Your task to perform on an android device: toggle location history Image 0: 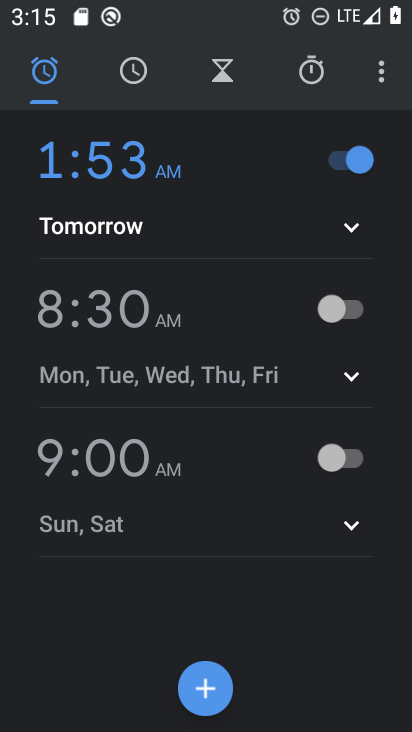
Step 0: press home button
Your task to perform on an android device: toggle location history Image 1: 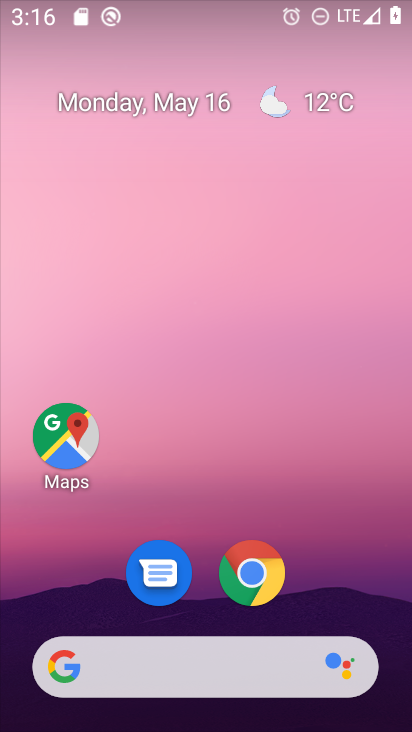
Step 1: drag from (155, 693) to (148, 33)
Your task to perform on an android device: toggle location history Image 2: 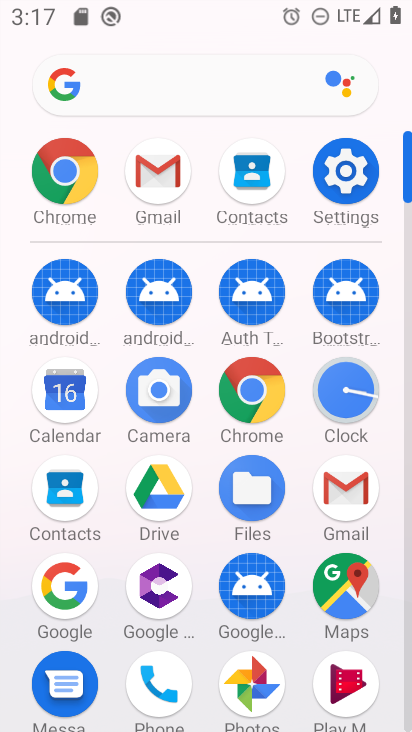
Step 2: click (342, 178)
Your task to perform on an android device: toggle location history Image 3: 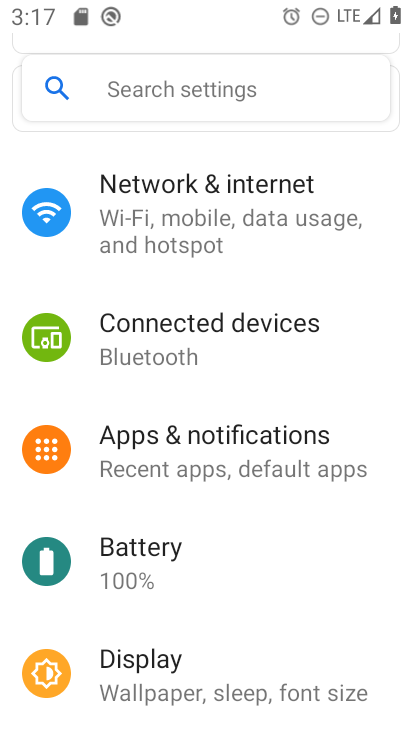
Step 3: drag from (263, 581) to (190, 108)
Your task to perform on an android device: toggle location history Image 4: 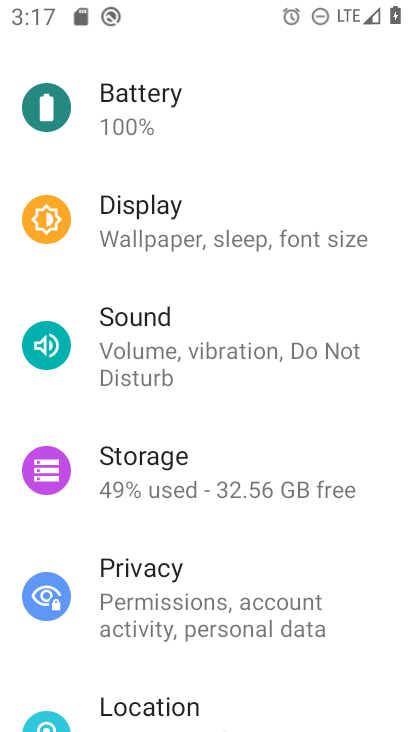
Step 4: drag from (153, 657) to (157, 335)
Your task to perform on an android device: toggle location history Image 5: 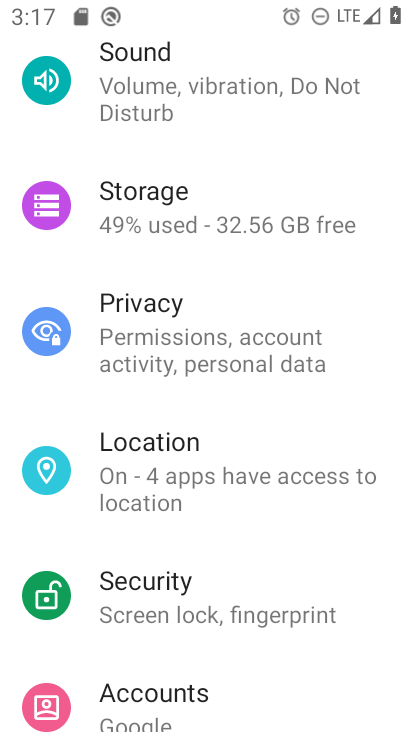
Step 5: click (138, 503)
Your task to perform on an android device: toggle location history Image 6: 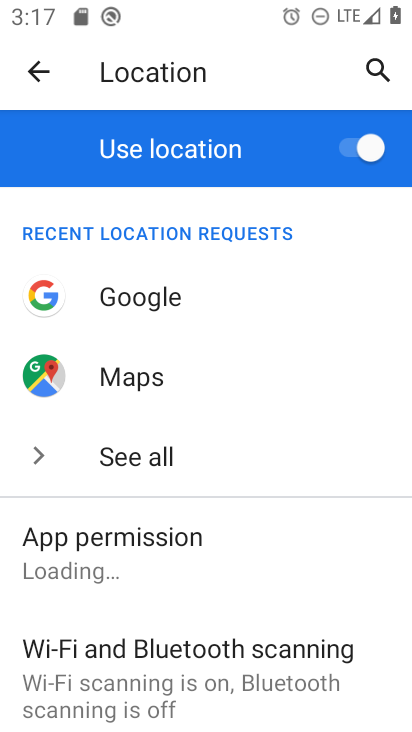
Step 6: drag from (126, 578) to (132, 42)
Your task to perform on an android device: toggle location history Image 7: 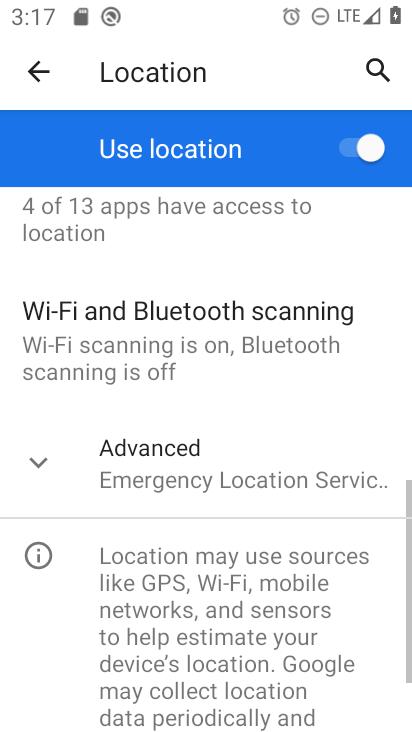
Step 7: drag from (187, 632) to (173, 354)
Your task to perform on an android device: toggle location history Image 8: 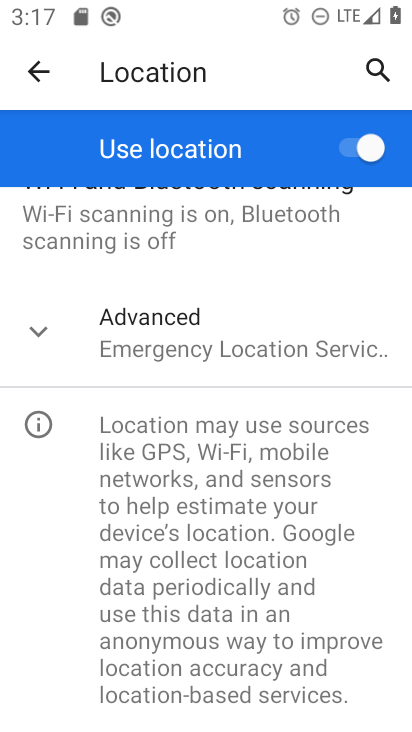
Step 8: click (132, 350)
Your task to perform on an android device: toggle location history Image 9: 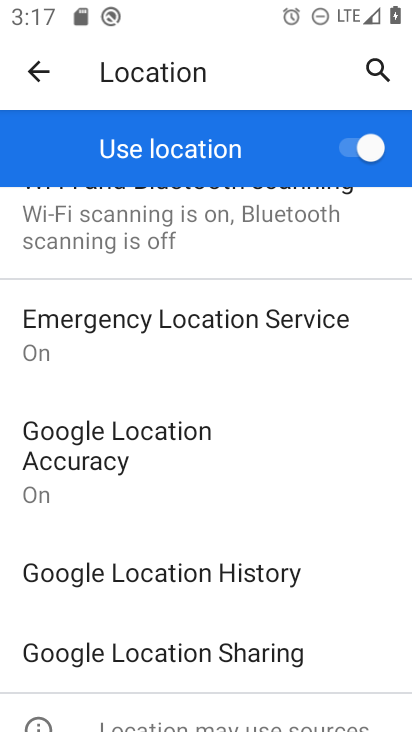
Step 9: click (177, 564)
Your task to perform on an android device: toggle location history Image 10: 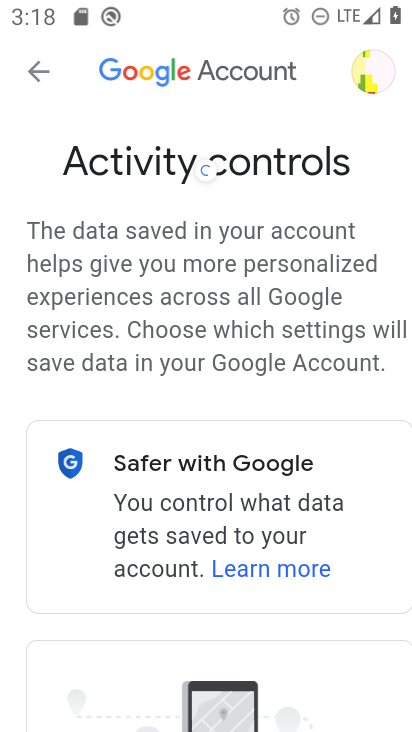
Step 10: drag from (261, 524) to (13, 439)
Your task to perform on an android device: toggle location history Image 11: 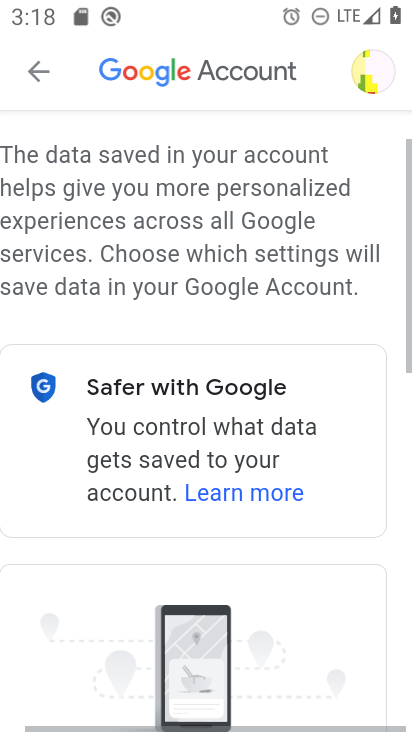
Step 11: drag from (273, 577) to (24, 17)
Your task to perform on an android device: toggle location history Image 12: 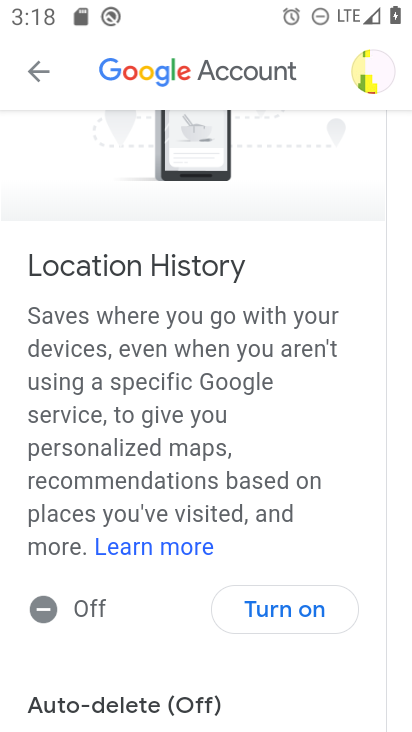
Step 12: click (266, 617)
Your task to perform on an android device: toggle location history Image 13: 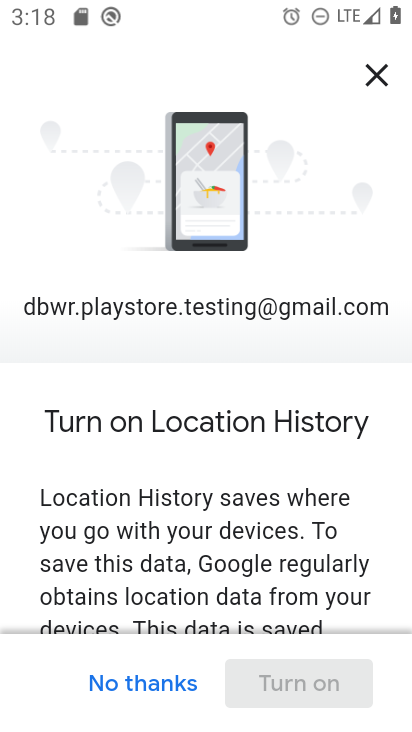
Step 13: drag from (260, 591) to (89, 26)
Your task to perform on an android device: toggle location history Image 14: 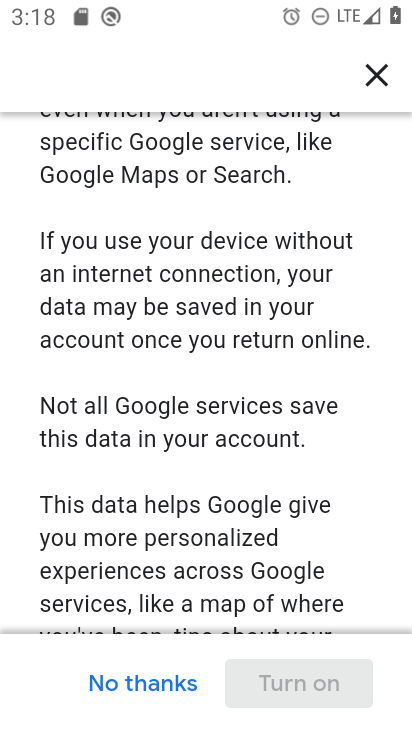
Step 14: drag from (308, 587) to (200, 8)
Your task to perform on an android device: toggle location history Image 15: 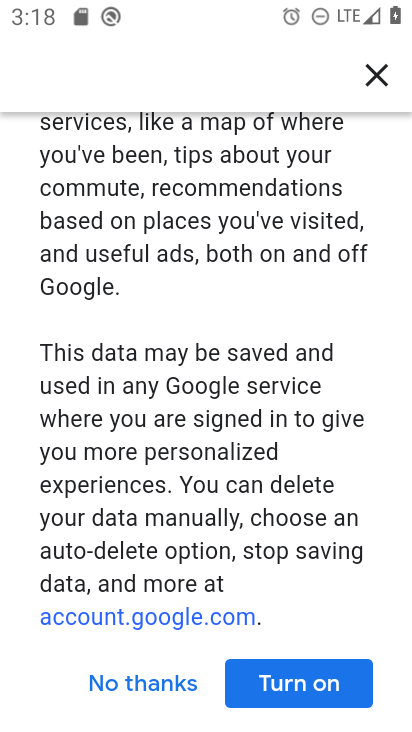
Step 15: click (269, 667)
Your task to perform on an android device: toggle location history Image 16: 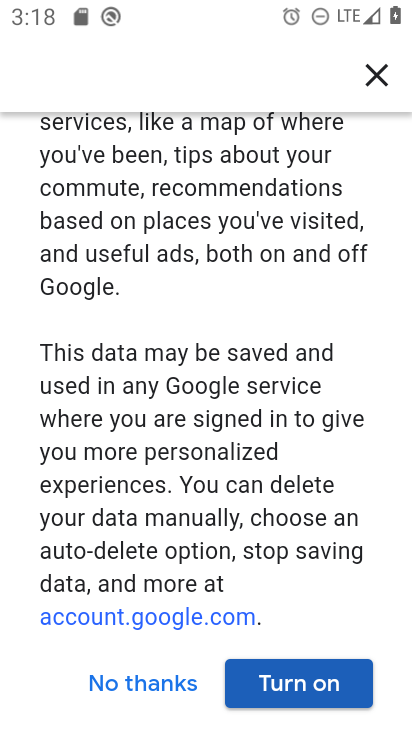
Step 16: click (272, 688)
Your task to perform on an android device: toggle location history Image 17: 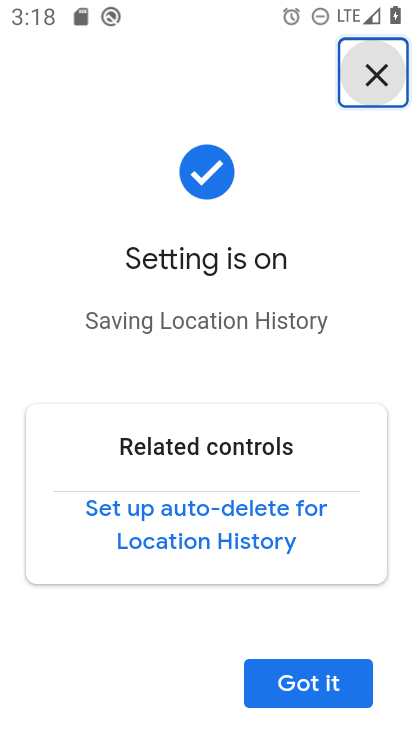
Step 17: click (280, 692)
Your task to perform on an android device: toggle location history Image 18: 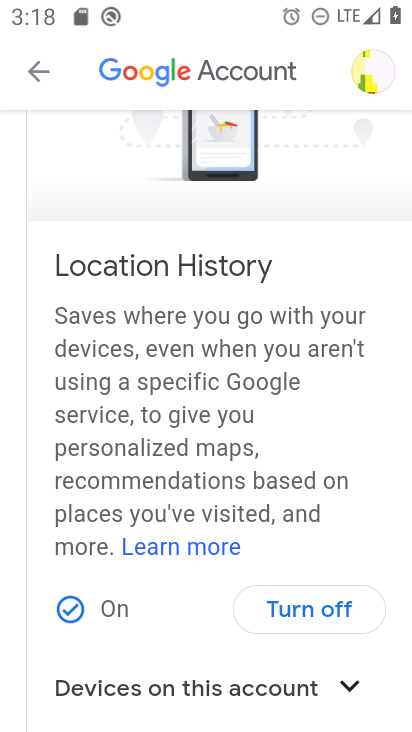
Step 18: task complete